Your task to perform on an android device: toggle airplane mode Image 0: 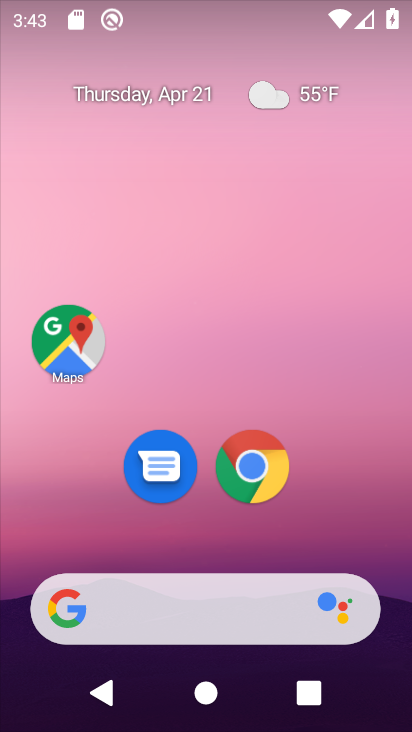
Step 0: drag from (310, 532) to (301, 98)
Your task to perform on an android device: toggle airplane mode Image 1: 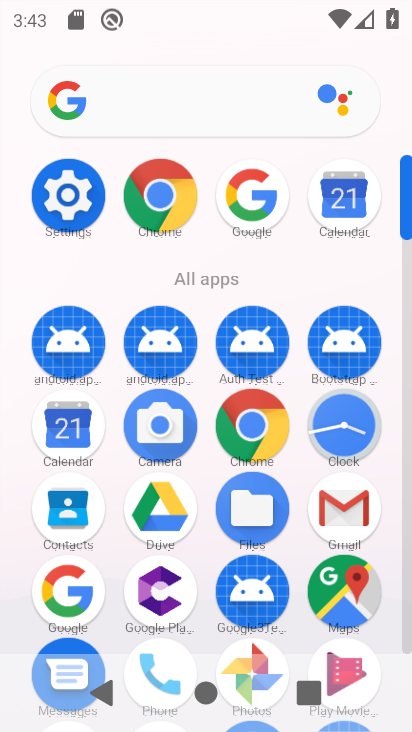
Step 1: click (78, 197)
Your task to perform on an android device: toggle airplane mode Image 2: 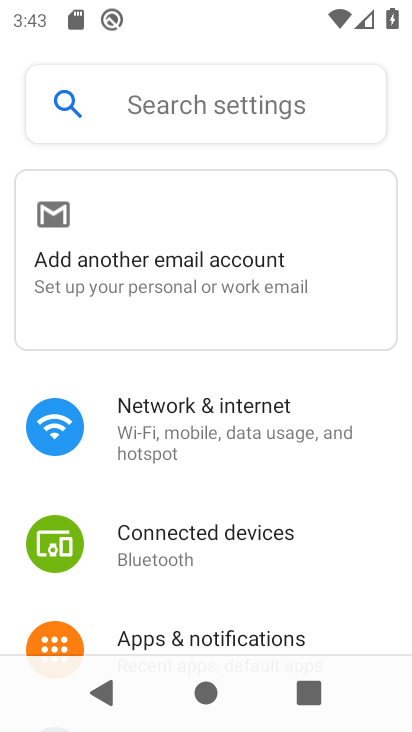
Step 2: click (197, 417)
Your task to perform on an android device: toggle airplane mode Image 3: 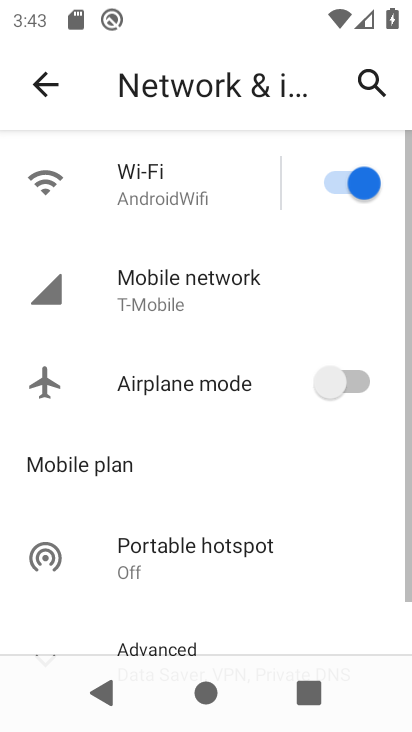
Step 3: click (340, 382)
Your task to perform on an android device: toggle airplane mode Image 4: 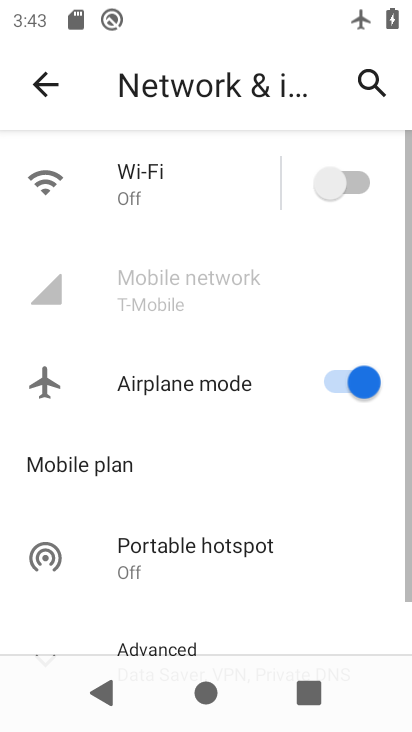
Step 4: task complete